Your task to perform on an android device: find photos in the google photos app Image 0: 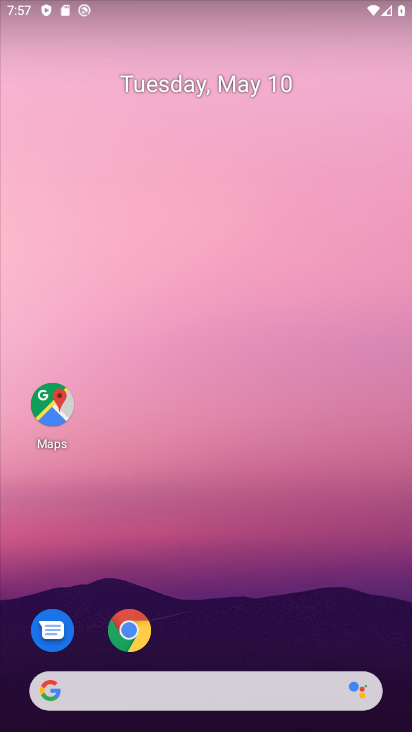
Step 0: drag from (253, 729) to (235, 39)
Your task to perform on an android device: find photos in the google photos app Image 1: 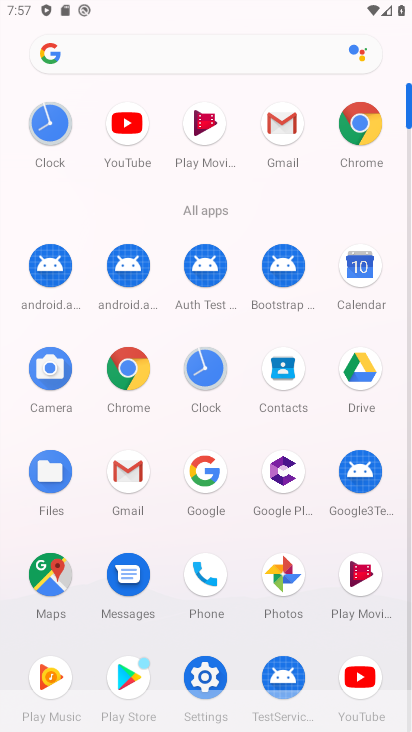
Step 1: click (274, 575)
Your task to perform on an android device: find photos in the google photos app Image 2: 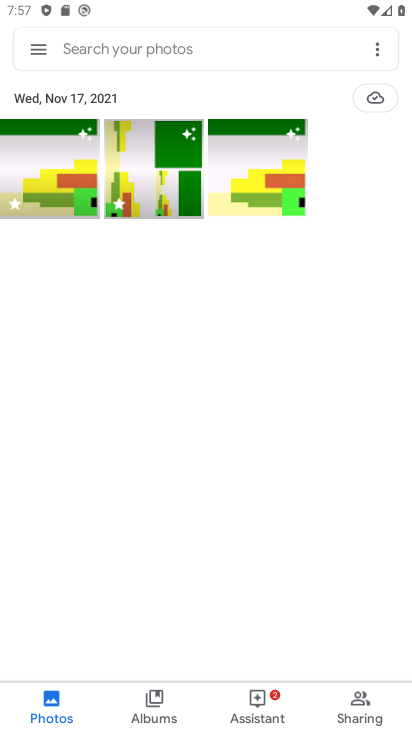
Step 2: task complete